Your task to perform on an android device: see sites visited before in the chrome app Image 0: 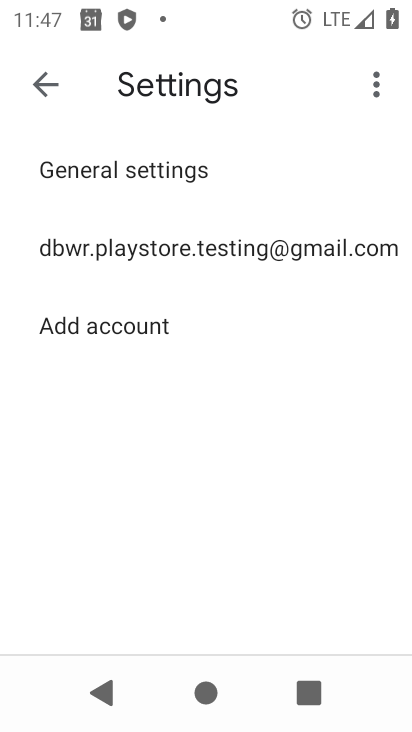
Step 0: press back button
Your task to perform on an android device: see sites visited before in the chrome app Image 1: 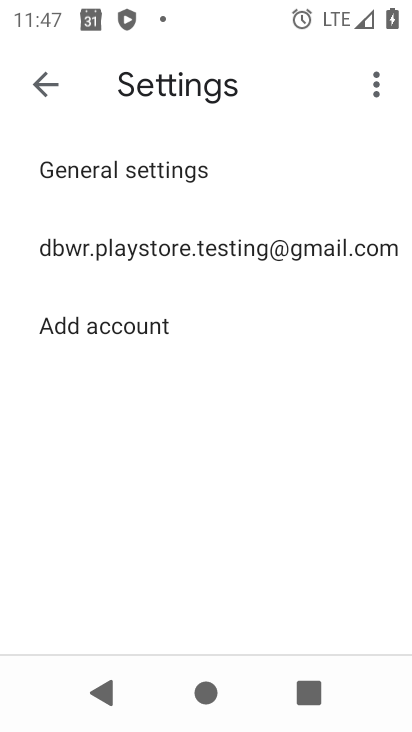
Step 1: press back button
Your task to perform on an android device: see sites visited before in the chrome app Image 2: 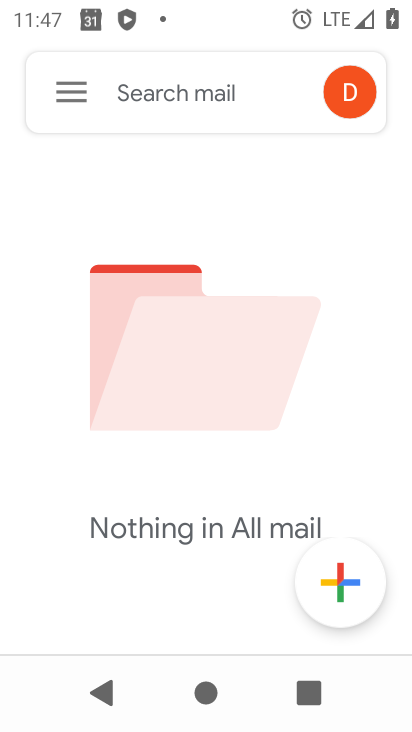
Step 2: press back button
Your task to perform on an android device: see sites visited before in the chrome app Image 3: 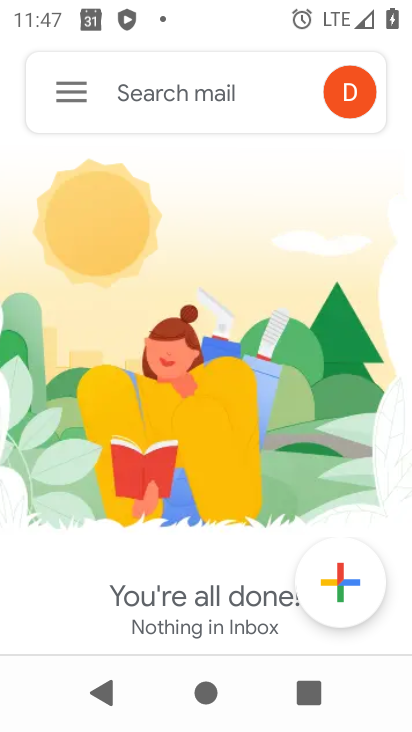
Step 3: press back button
Your task to perform on an android device: see sites visited before in the chrome app Image 4: 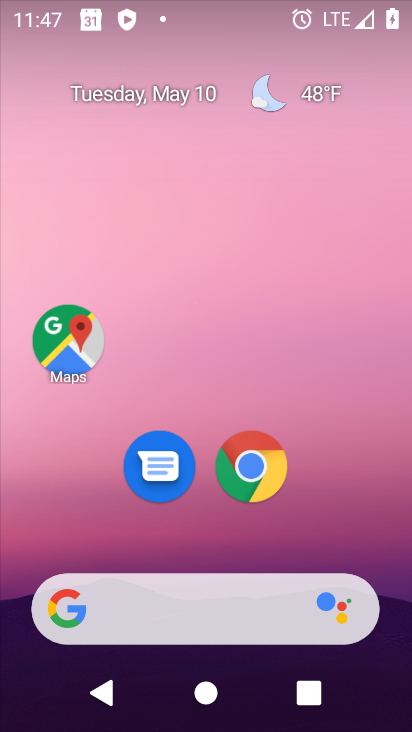
Step 4: click (245, 467)
Your task to perform on an android device: see sites visited before in the chrome app Image 5: 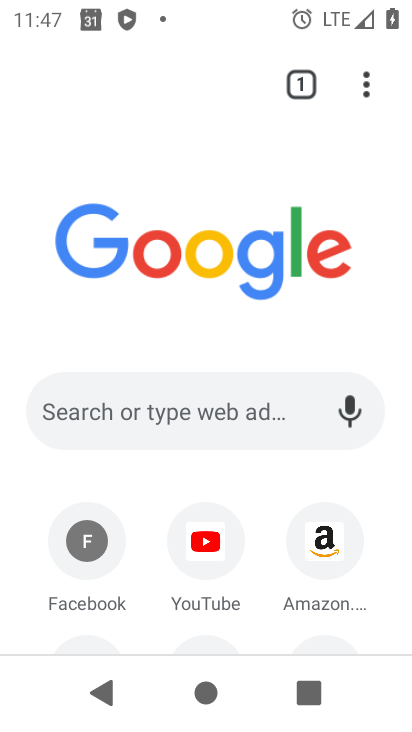
Step 5: task complete